Your task to perform on an android device: Clear the cart on ebay. Search for apple airpods pro on ebay, select the first entry, and add it to the cart. Image 0: 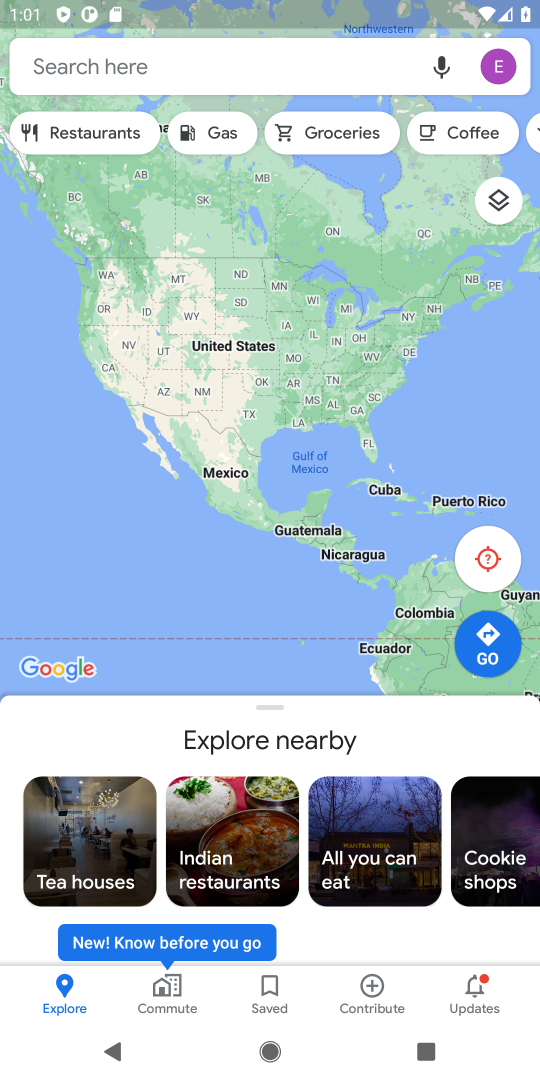
Step 0: press home button
Your task to perform on an android device: Clear the cart on ebay. Search for apple airpods pro on ebay, select the first entry, and add it to the cart. Image 1: 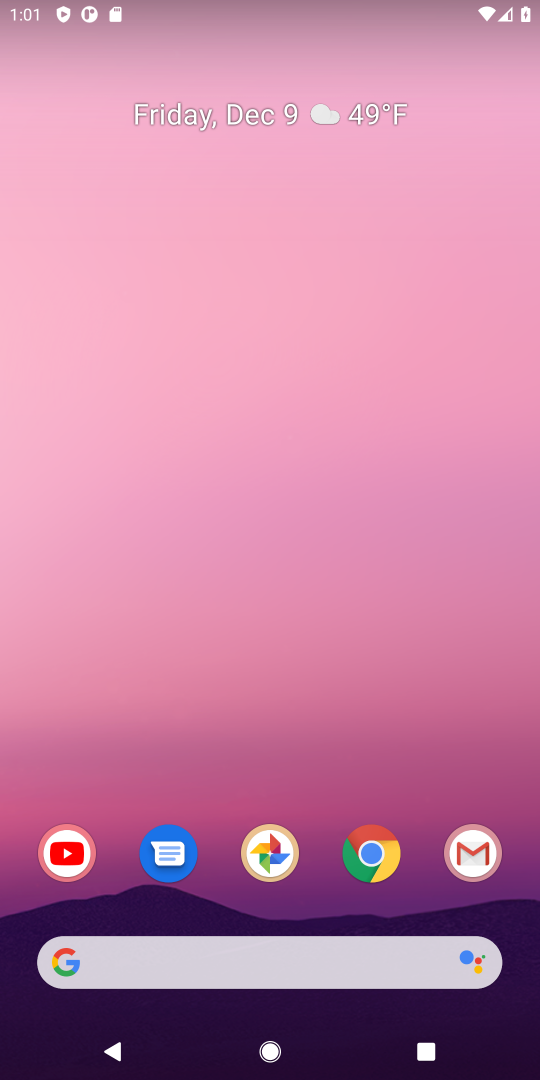
Step 1: drag from (274, 949) to (341, 341)
Your task to perform on an android device: Clear the cart on ebay. Search for apple airpods pro on ebay, select the first entry, and add it to the cart. Image 2: 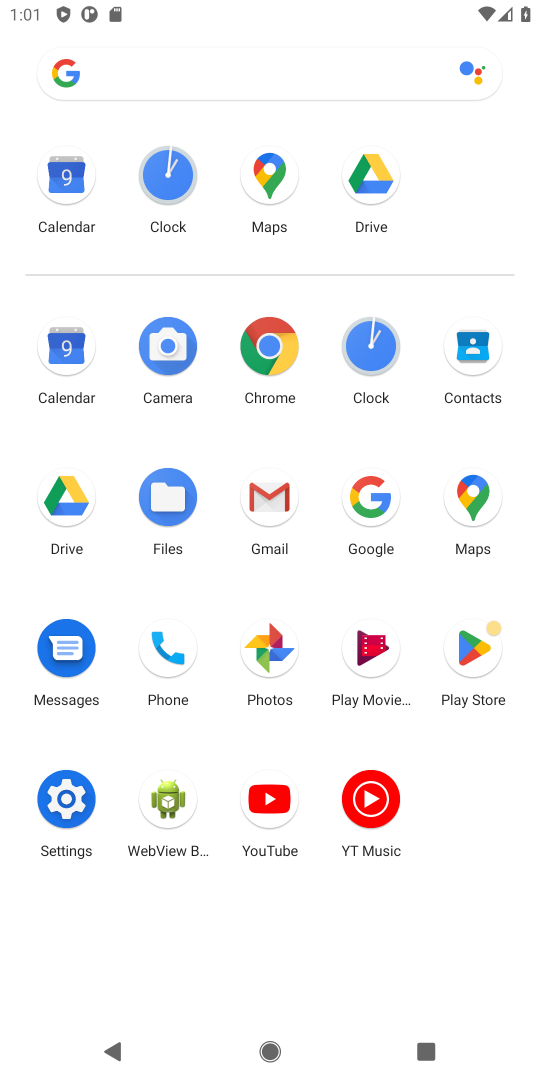
Step 2: click (375, 490)
Your task to perform on an android device: Clear the cart on ebay. Search for apple airpods pro on ebay, select the first entry, and add it to the cart. Image 3: 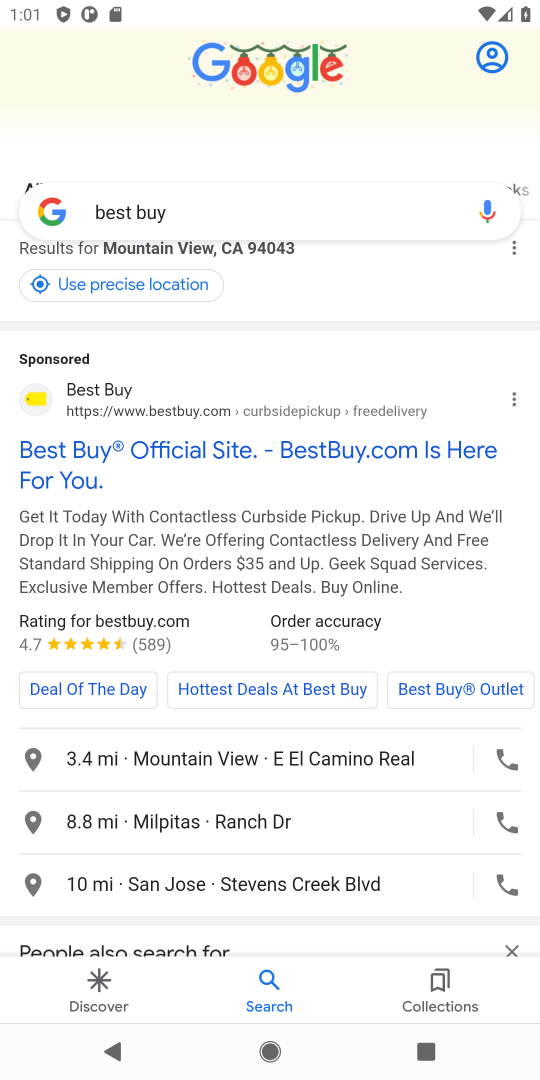
Step 3: click (152, 217)
Your task to perform on an android device: Clear the cart on ebay. Search for apple airpods pro on ebay, select the first entry, and add it to the cart. Image 4: 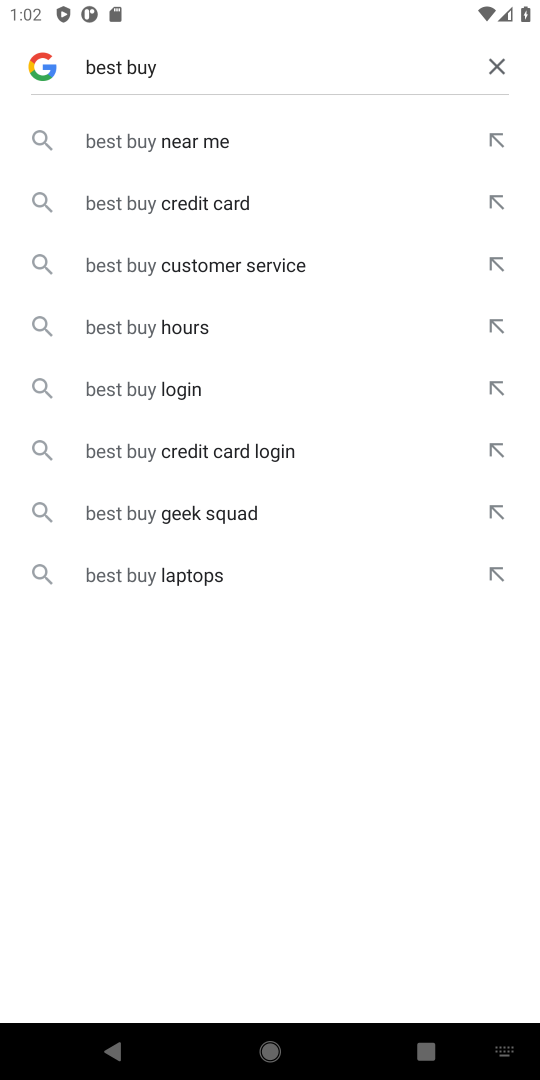
Step 4: click (499, 66)
Your task to perform on an android device: Clear the cart on ebay. Search for apple airpods pro on ebay, select the first entry, and add it to the cart. Image 5: 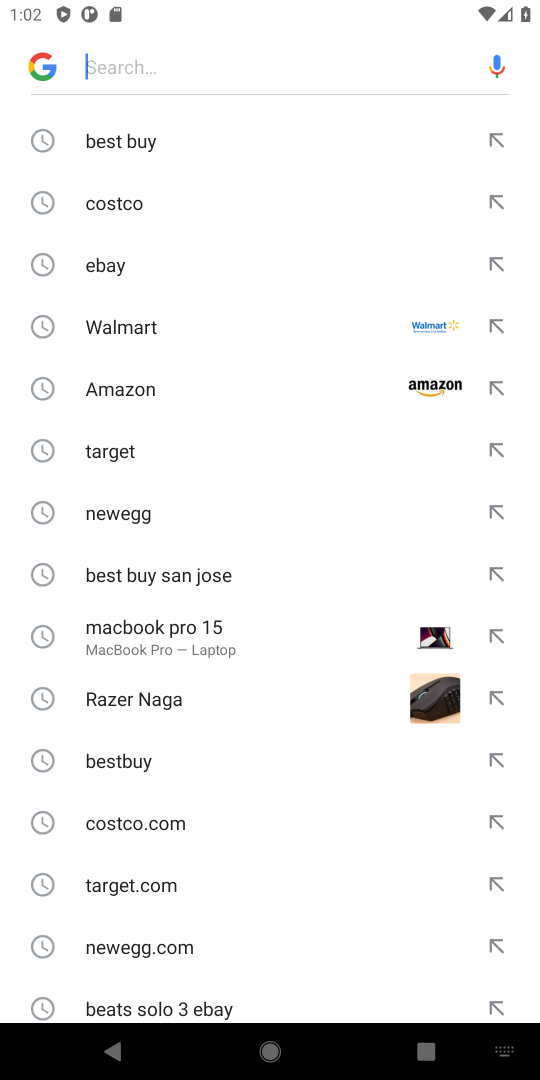
Step 5: click (100, 258)
Your task to perform on an android device: Clear the cart on ebay. Search for apple airpods pro on ebay, select the first entry, and add it to the cart. Image 6: 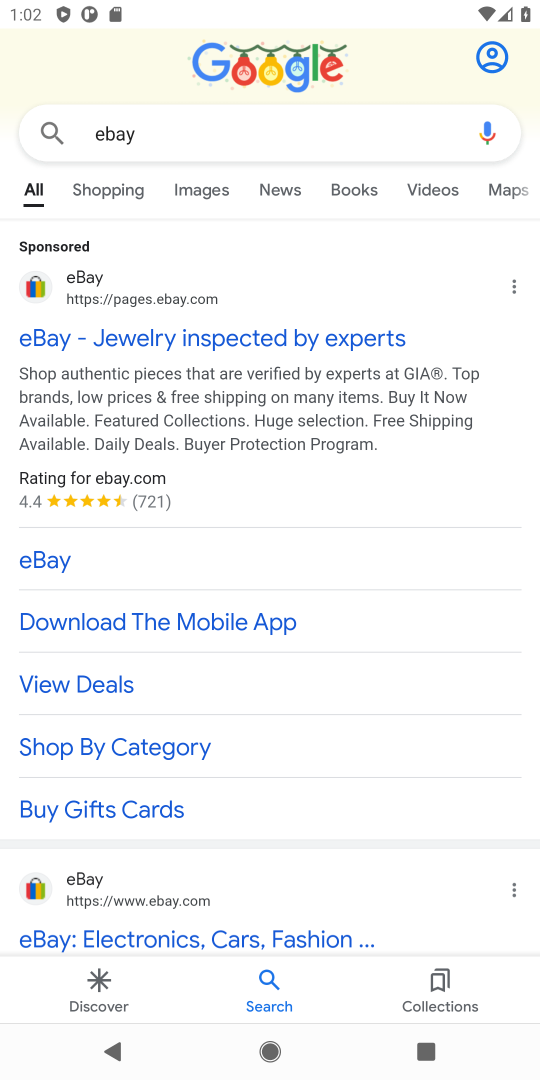
Step 6: click (176, 339)
Your task to perform on an android device: Clear the cart on ebay. Search for apple airpods pro on ebay, select the first entry, and add it to the cart. Image 7: 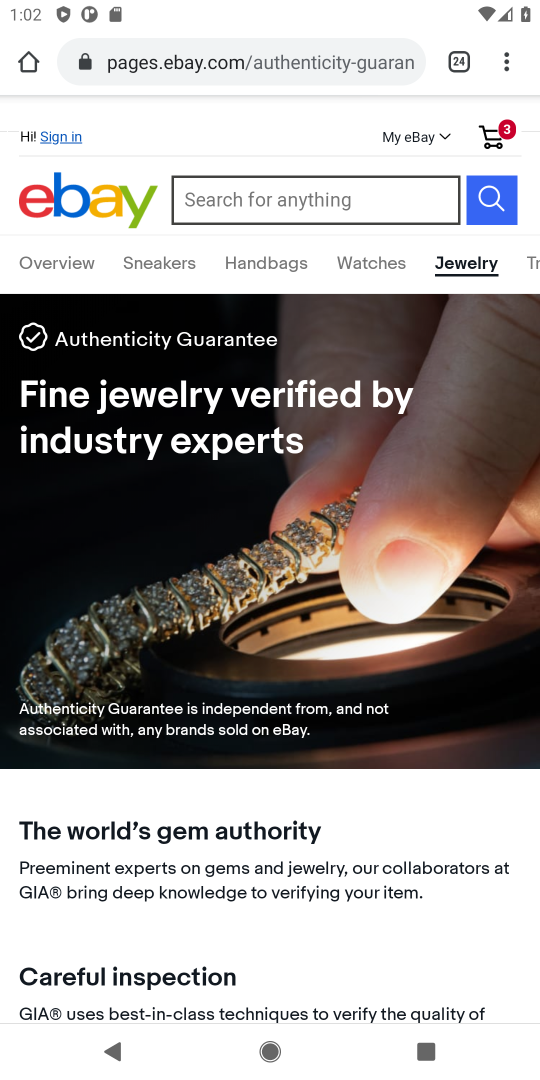
Step 7: click (252, 191)
Your task to perform on an android device: Clear the cart on ebay. Search for apple airpods pro on ebay, select the first entry, and add it to the cart. Image 8: 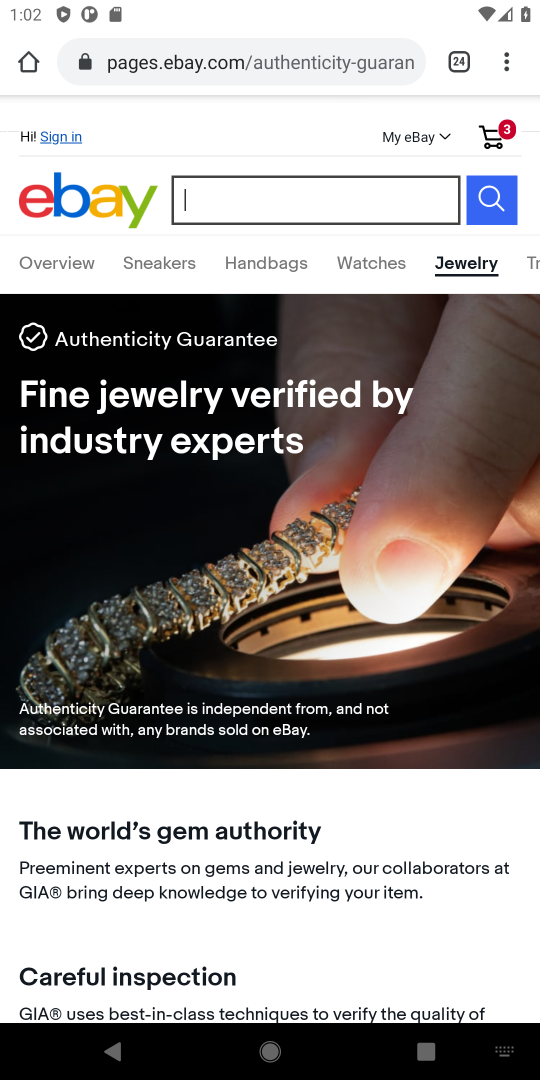
Step 8: click (498, 134)
Your task to perform on an android device: Clear the cart on ebay. Search for apple airpods pro on ebay, select the first entry, and add it to the cart. Image 9: 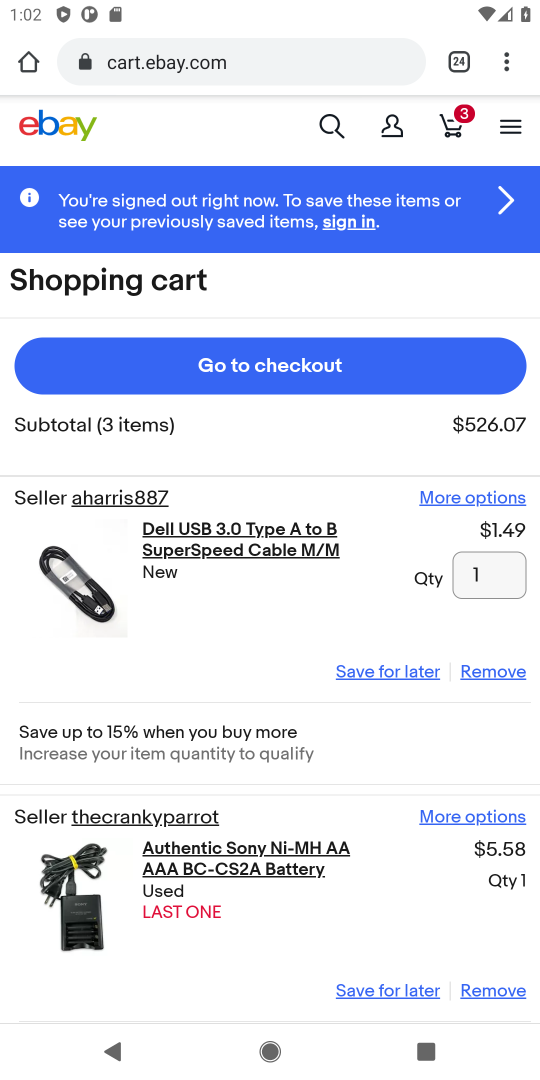
Step 9: click (491, 671)
Your task to perform on an android device: Clear the cart on ebay. Search for apple airpods pro on ebay, select the first entry, and add it to the cart. Image 10: 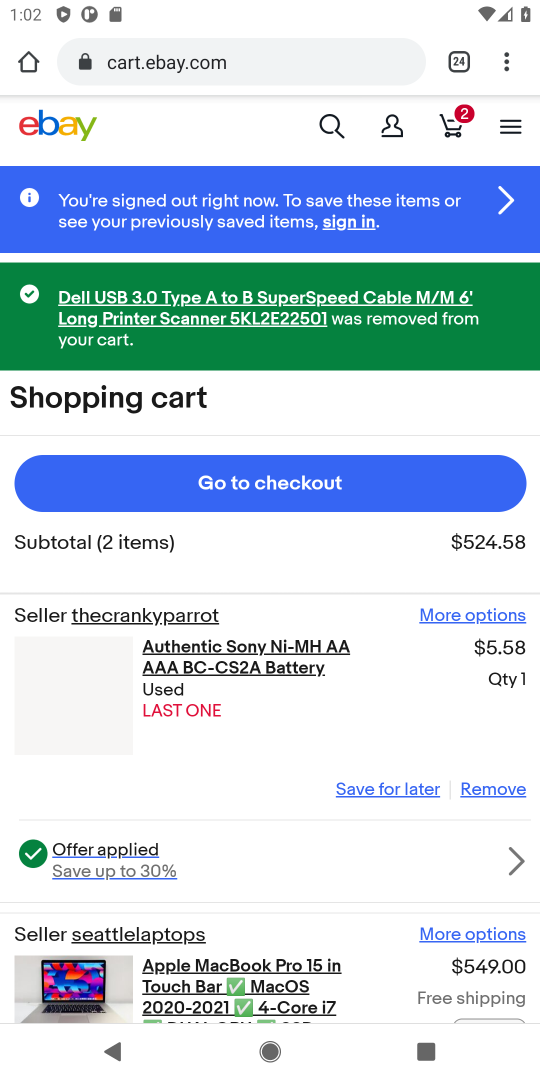
Step 10: click (502, 787)
Your task to perform on an android device: Clear the cart on ebay. Search for apple airpods pro on ebay, select the first entry, and add it to the cart. Image 11: 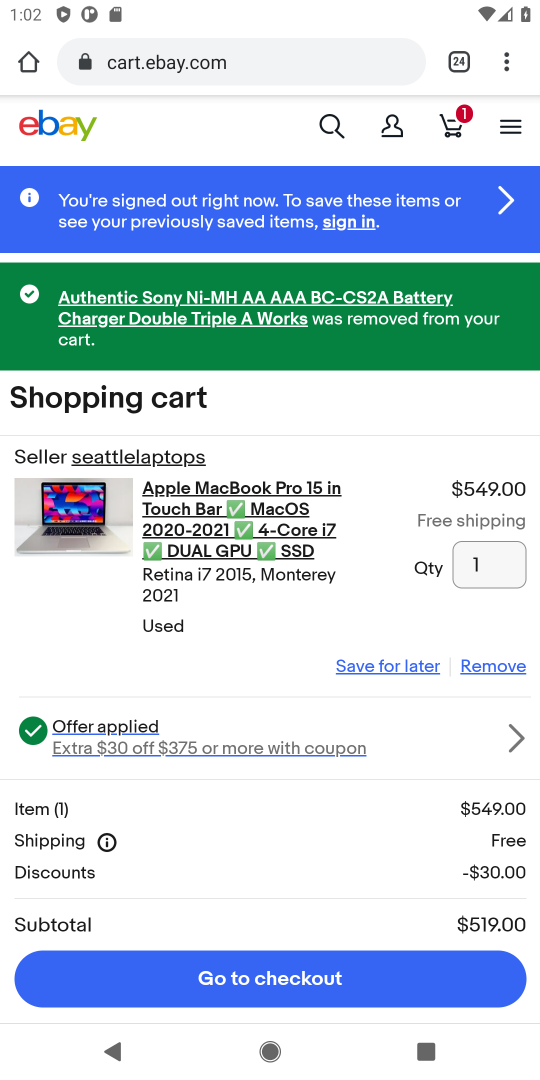
Step 11: click (488, 664)
Your task to perform on an android device: Clear the cart on ebay. Search for apple airpods pro on ebay, select the first entry, and add it to the cart. Image 12: 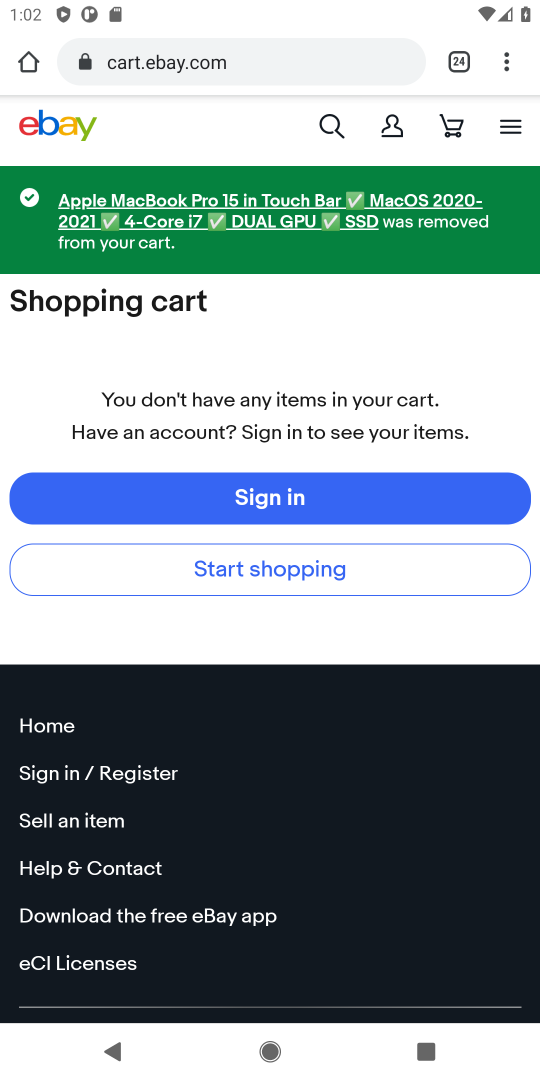
Step 12: click (329, 124)
Your task to perform on an android device: Clear the cart on ebay. Search for apple airpods pro on ebay, select the first entry, and add it to the cart. Image 13: 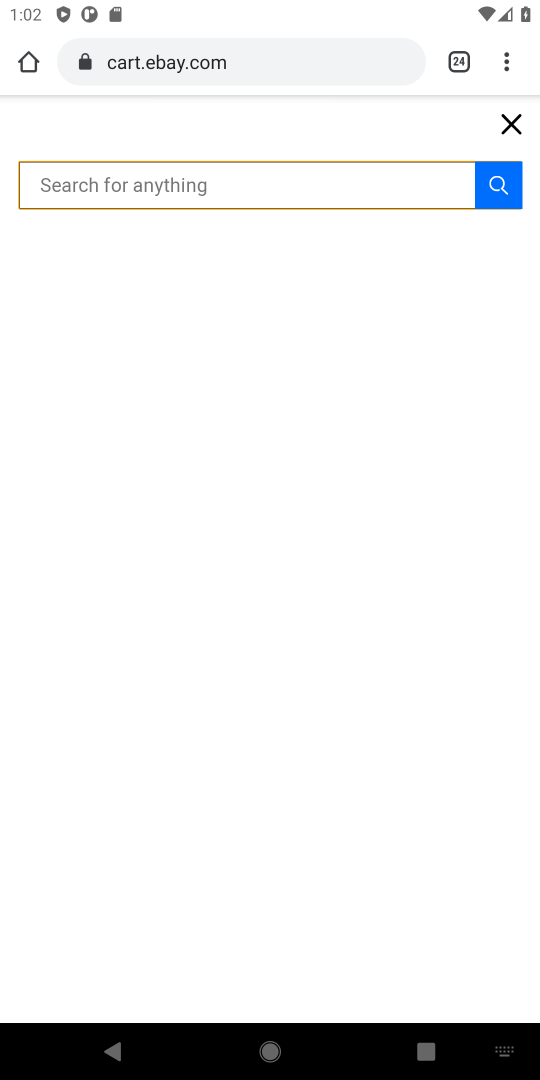
Step 13: type "apple airpods"
Your task to perform on an android device: Clear the cart on ebay. Search for apple airpods pro on ebay, select the first entry, and add it to the cart. Image 14: 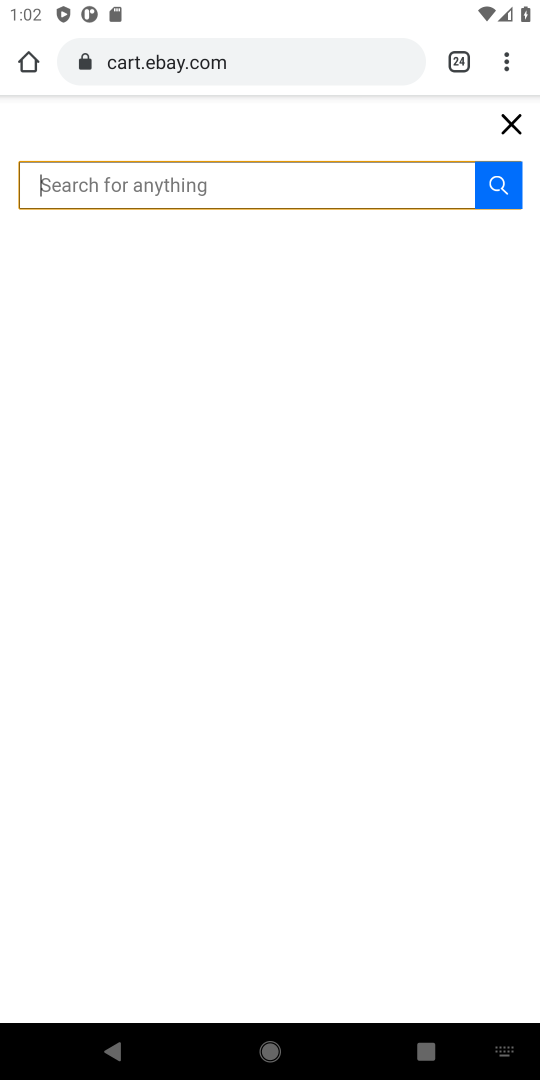
Step 14: click (497, 170)
Your task to perform on an android device: Clear the cart on ebay. Search for apple airpods pro on ebay, select the first entry, and add it to the cart. Image 15: 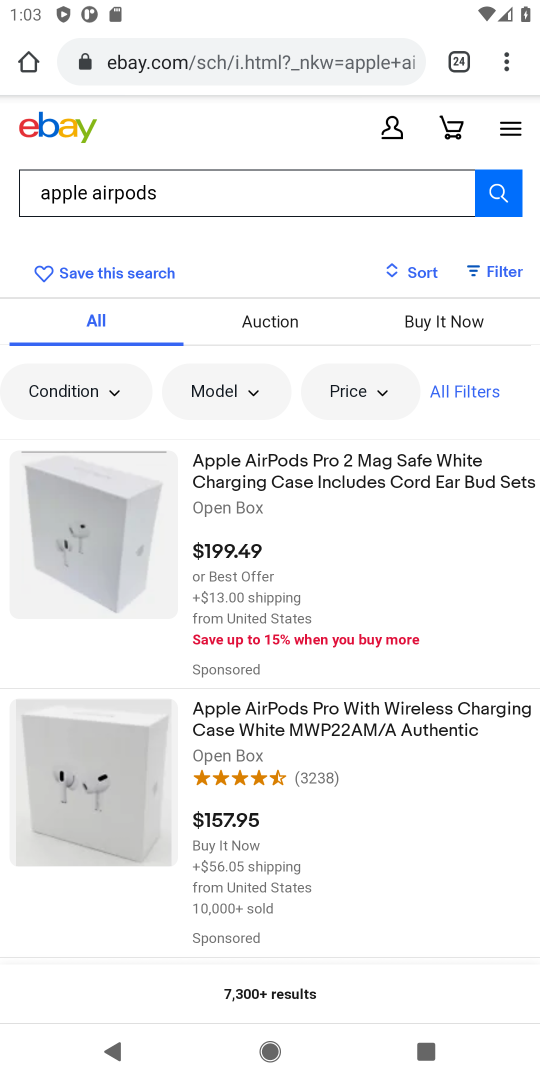
Step 15: click (243, 468)
Your task to perform on an android device: Clear the cart on ebay. Search for apple airpods pro on ebay, select the first entry, and add it to the cart. Image 16: 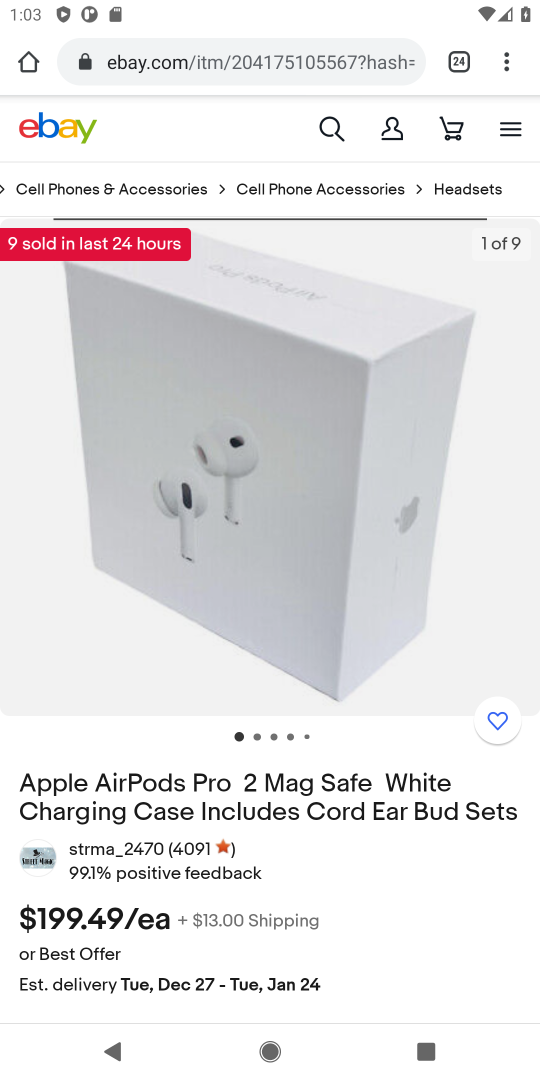
Step 16: drag from (264, 830) to (255, 435)
Your task to perform on an android device: Clear the cart on ebay. Search for apple airpods pro on ebay, select the first entry, and add it to the cart. Image 17: 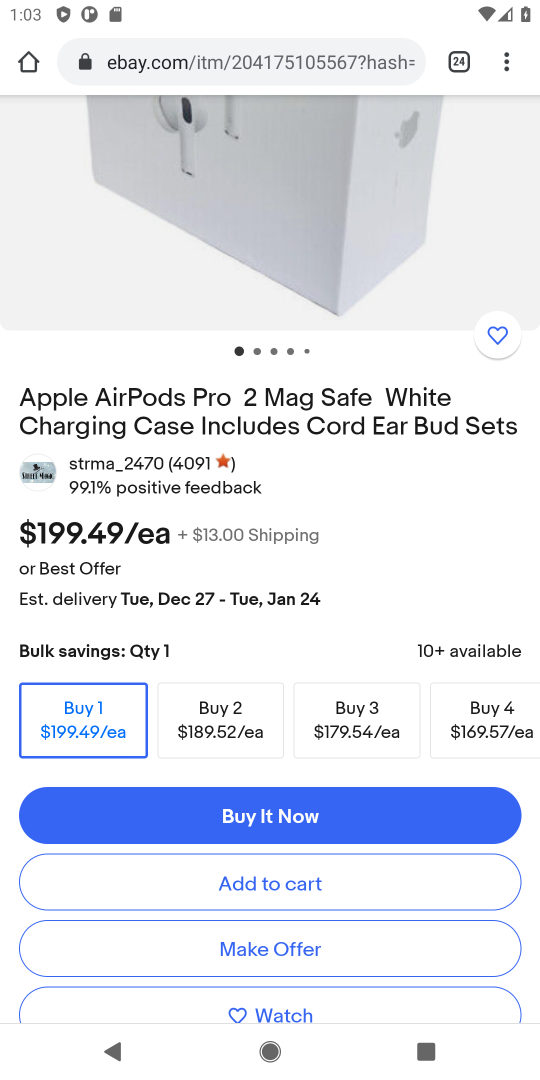
Step 17: click (266, 884)
Your task to perform on an android device: Clear the cart on ebay. Search for apple airpods pro on ebay, select the first entry, and add it to the cart. Image 18: 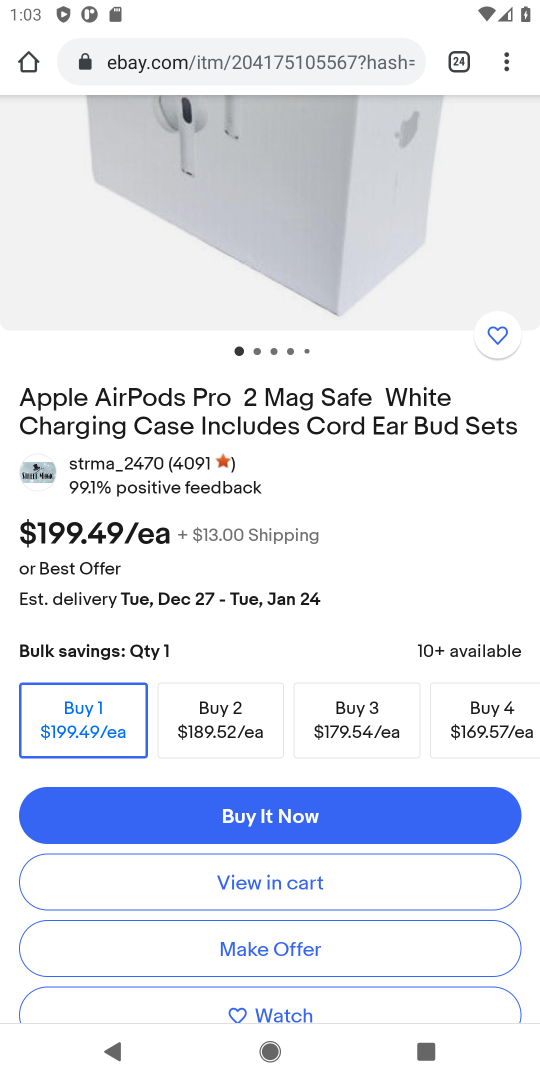
Step 18: click (272, 888)
Your task to perform on an android device: Clear the cart on ebay. Search for apple airpods pro on ebay, select the first entry, and add it to the cart. Image 19: 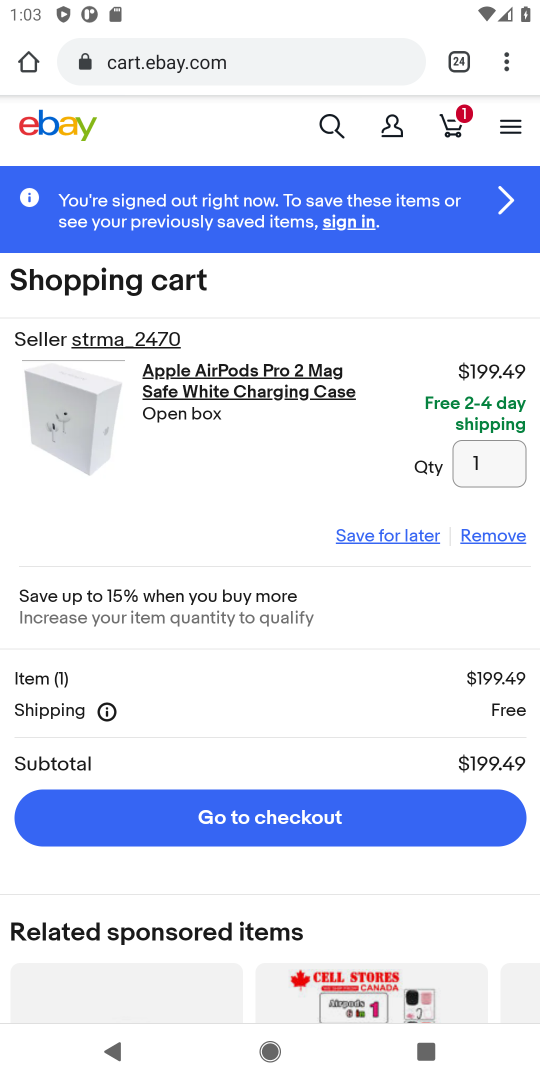
Step 19: click (327, 828)
Your task to perform on an android device: Clear the cart on ebay. Search for apple airpods pro on ebay, select the first entry, and add it to the cart. Image 20: 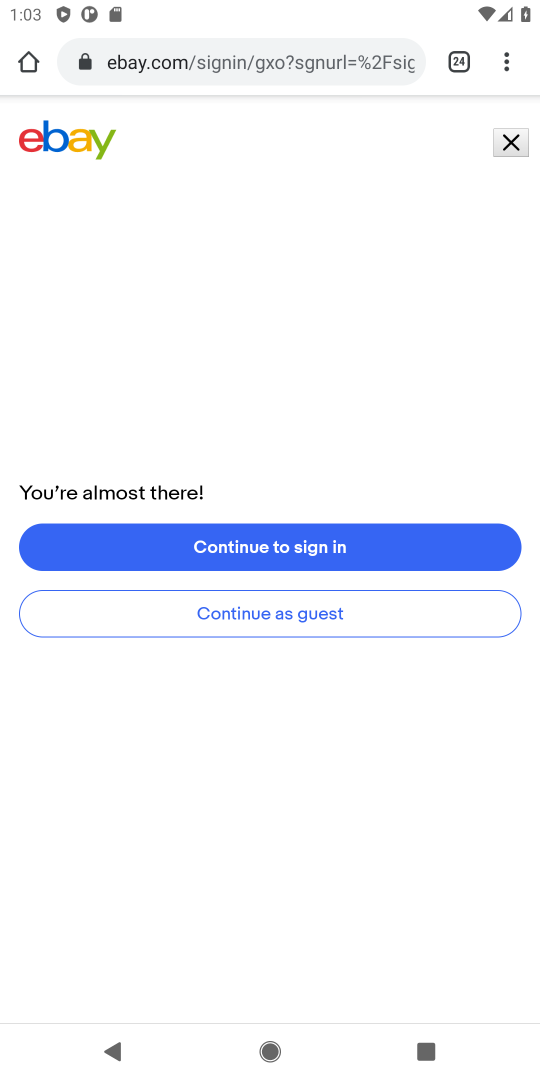
Step 20: task complete